Your task to perform on an android device: Show me my notifications Image 0: 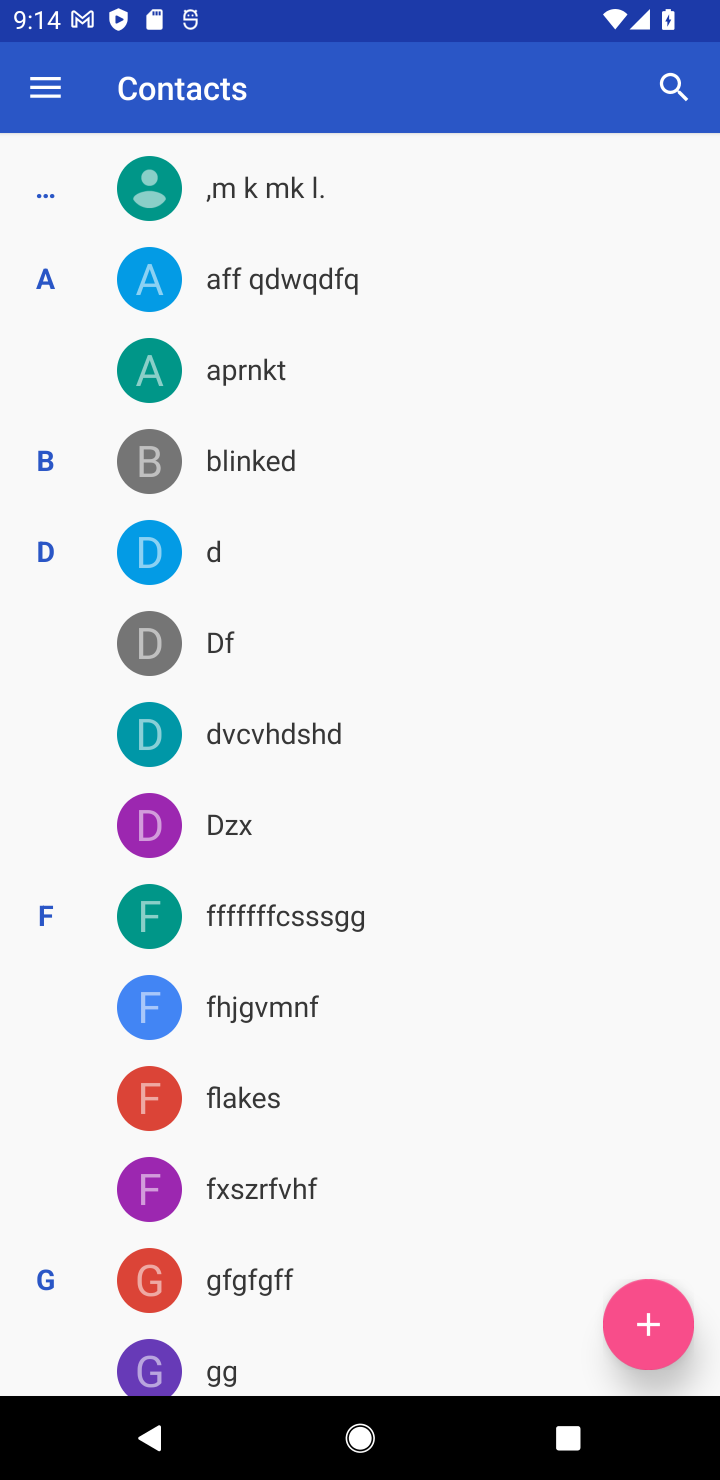
Step 0: press home button
Your task to perform on an android device: Show me my notifications Image 1: 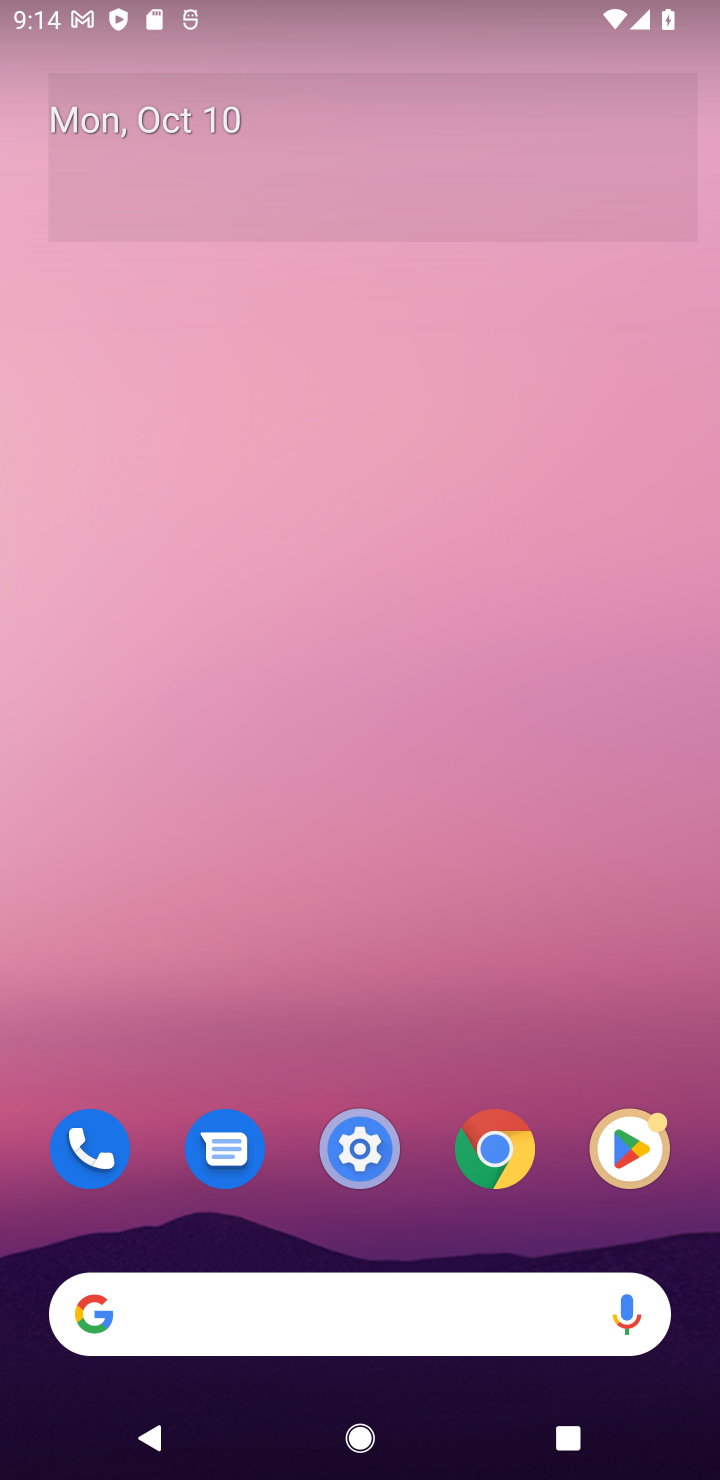
Step 1: click (286, 1295)
Your task to perform on an android device: Show me my notifications Image 2: 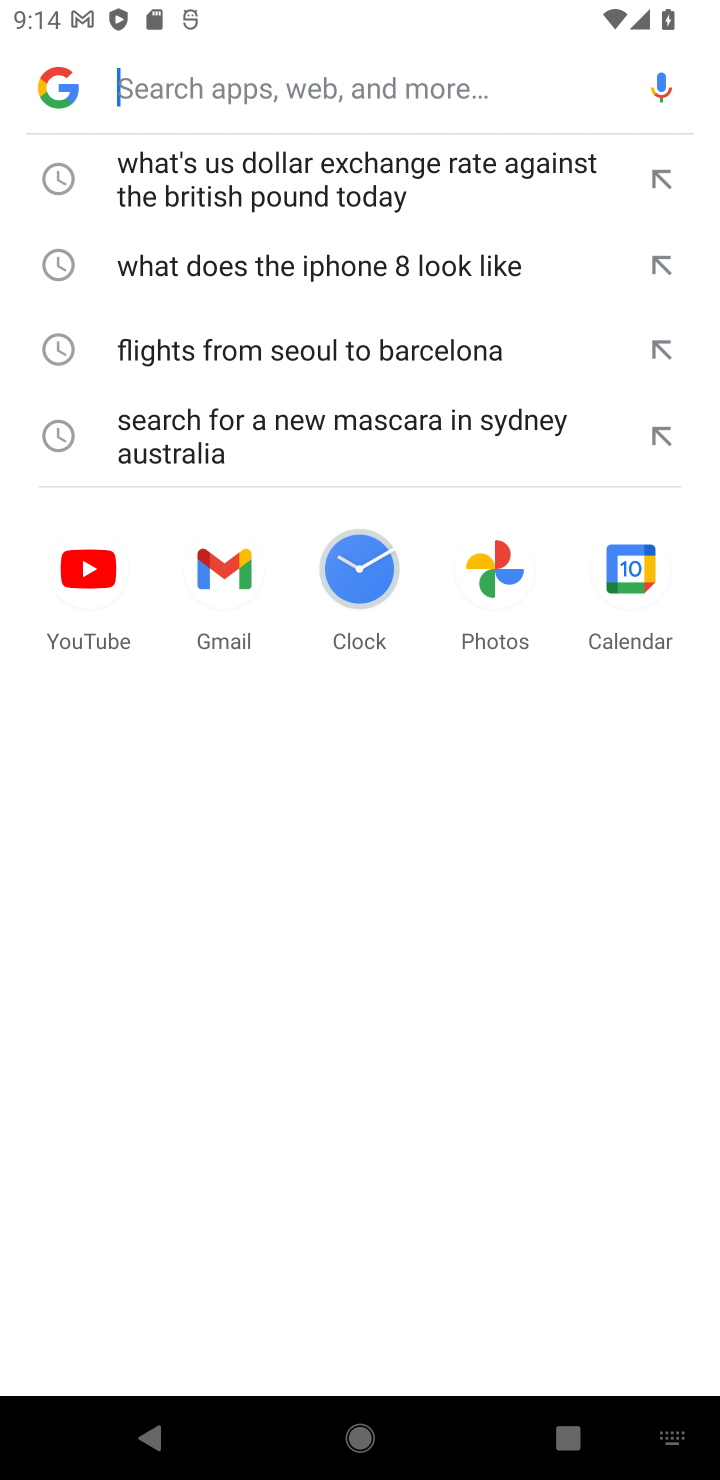
Step 2: type "Show me my notifications"
Your task to perform on an android device: Show me my notifications Image 3: 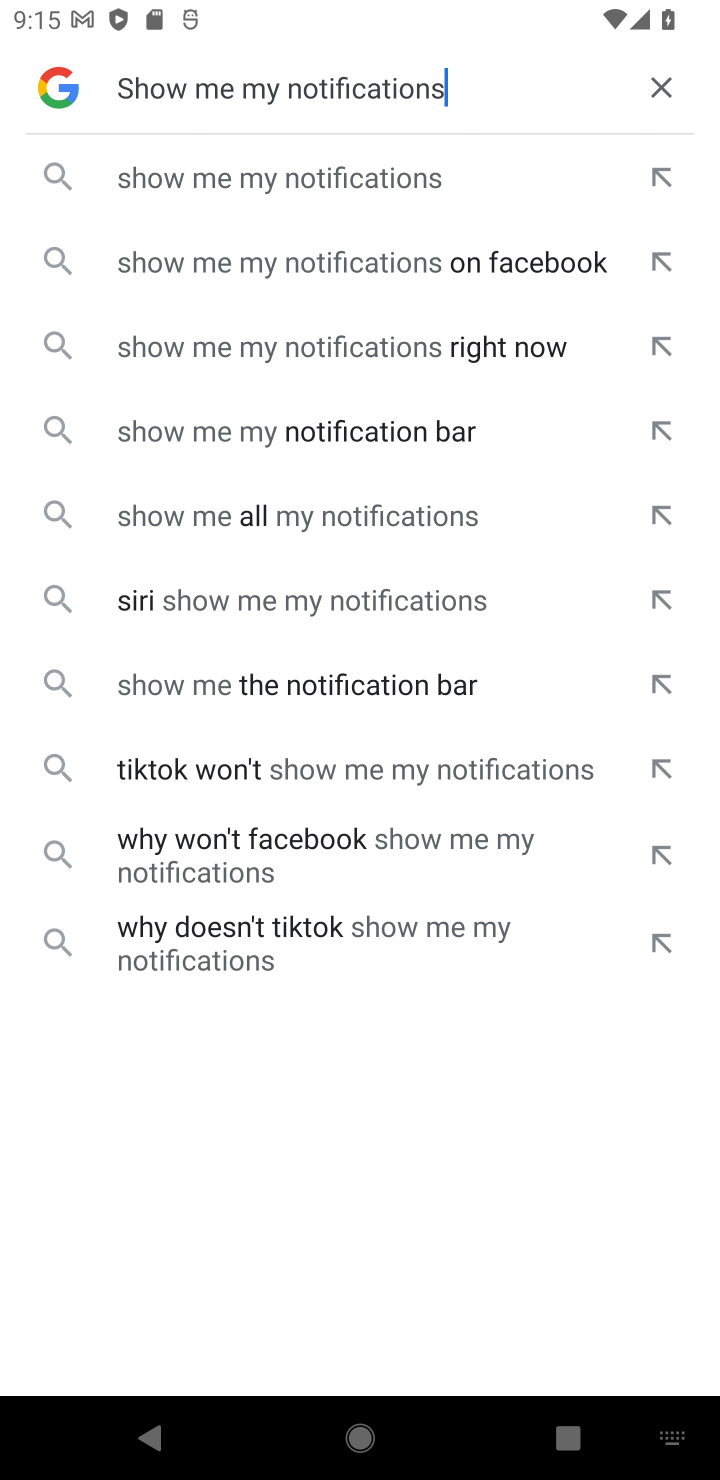
Step 3: click (527, 199)
Your task to perform on an android device: Show me my notifications Image 4: 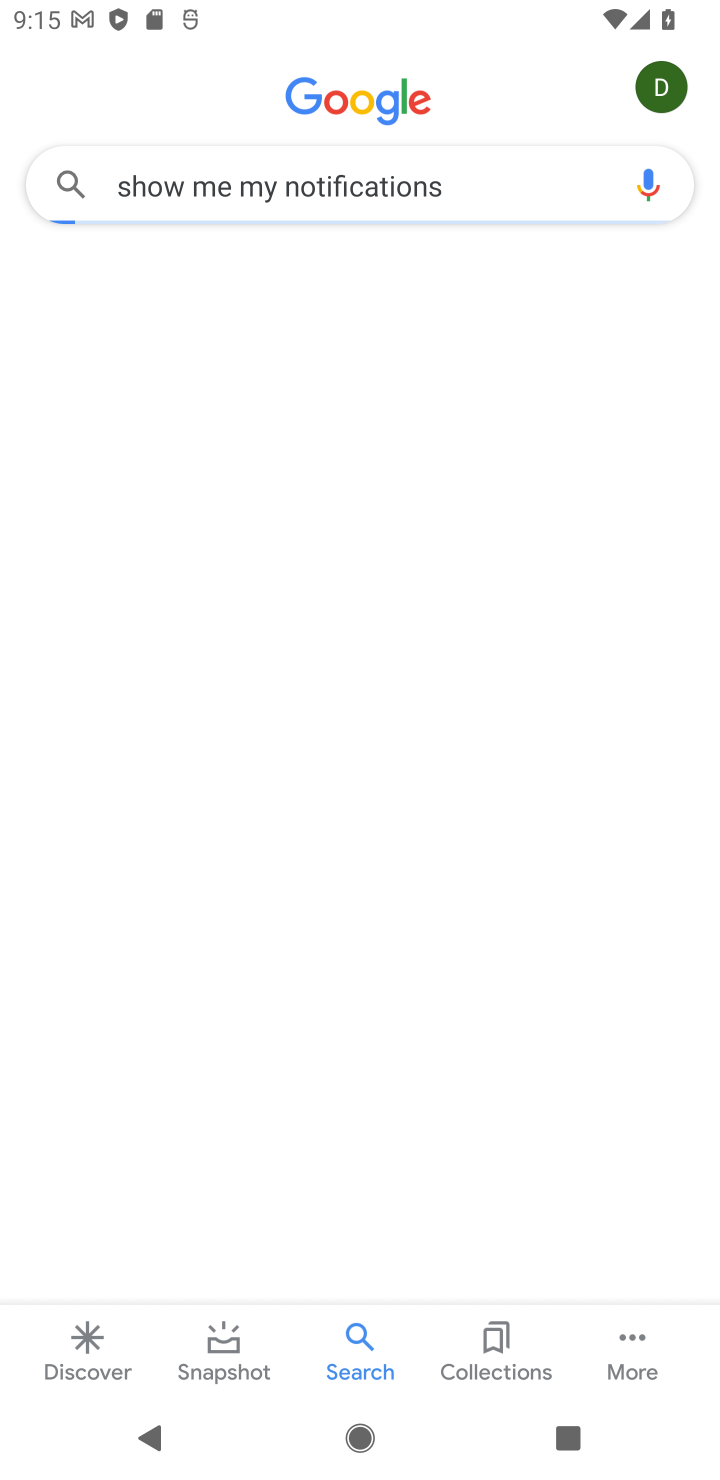
Step 4: task complete